Your task to perform on an android device: Open network settings Image 0: 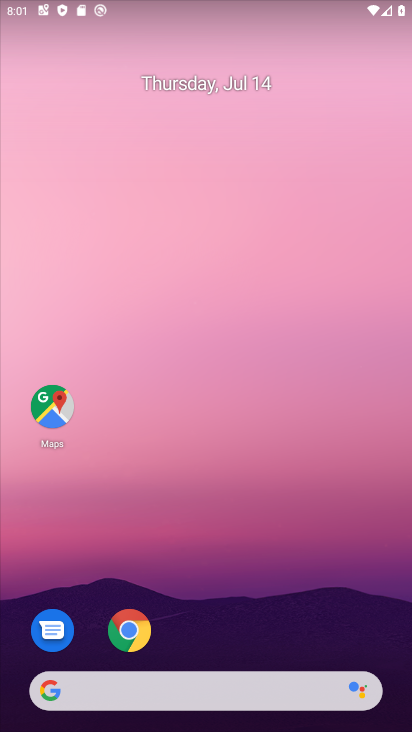
Step 0: drag from (319, 624) to (302, 151)
Your task to perform on an android device: Open network settings Image 1: 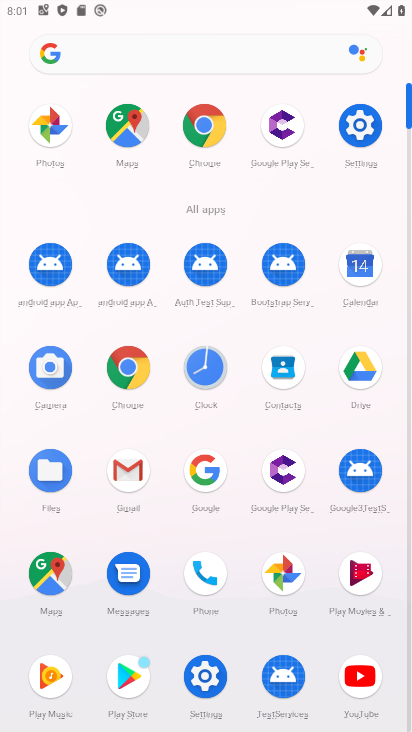
Step 1: click (354, 129)
Your task to perform on an android device: Open network settings Image 2: 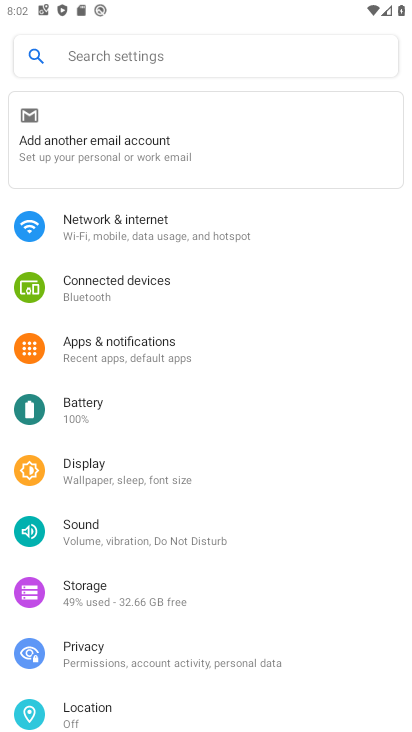
Step 2: click (103, 220)
Your task to perform on an android device: Open network settings Image 3: 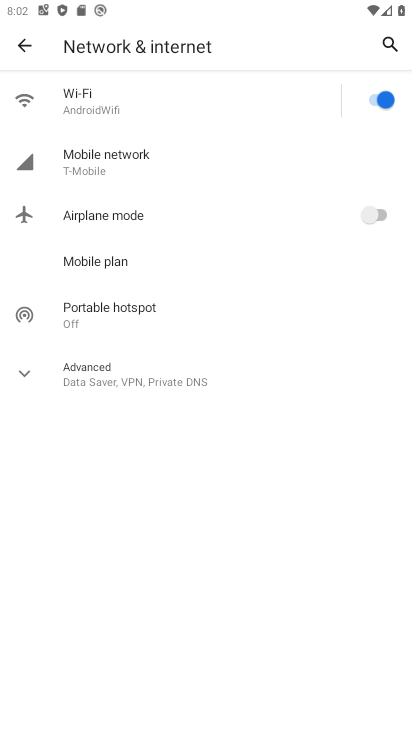
Step 3: click (124, 164)
Your task to perform on an android device: Open network settings Image 4: 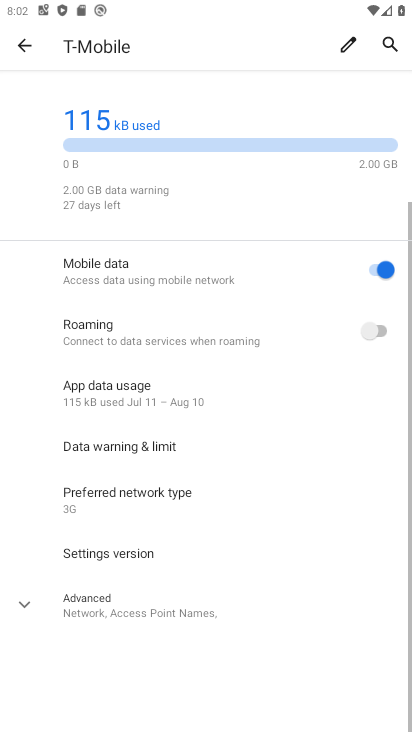
Step 4: task complete